Your task to perform on an android device: Open Chrome and go to settings Image 0: 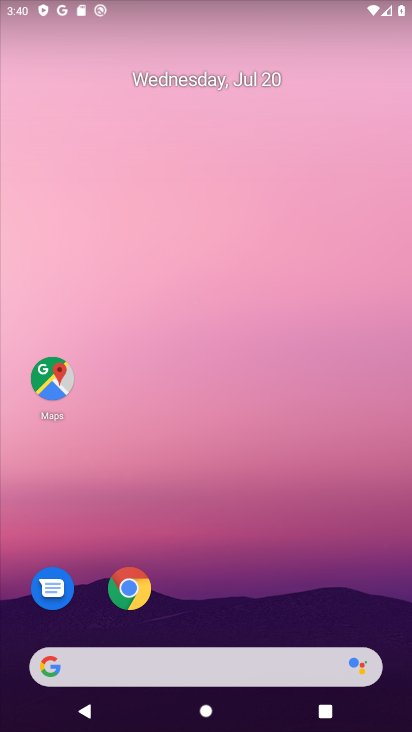
Step 0: click (125, 595)
Your task to perform on an android device: Open Chrome and go to settings Image 1: 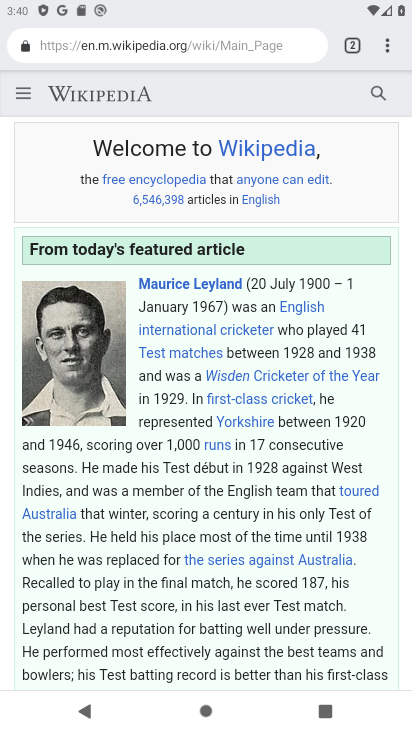
Step 1: click (390, 56)
Your task to perform on an android device: Open Chrome and go to settings Image 2: 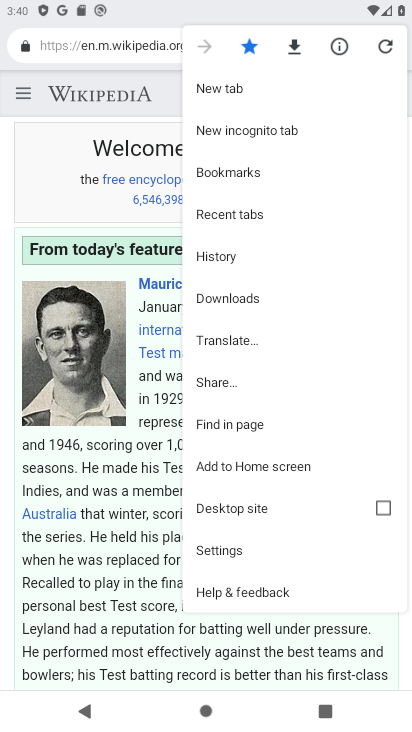
Step 2: click (231, 560)
Your task to perform on an android device: Open Chrome and go to settings Image 3: 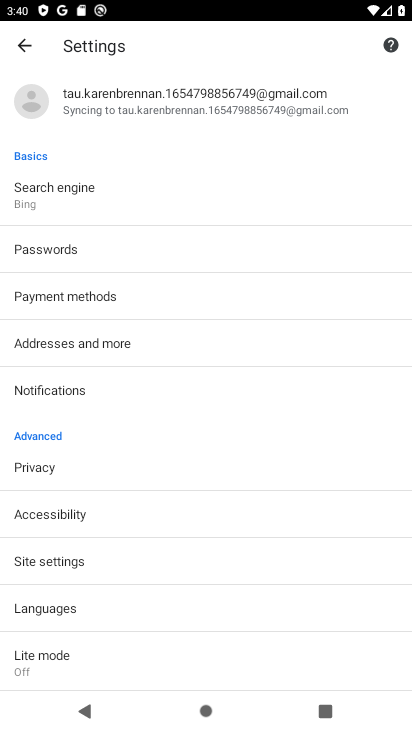
Step 3: task complete